Your task to perform on an android device: Open maps Image 0: 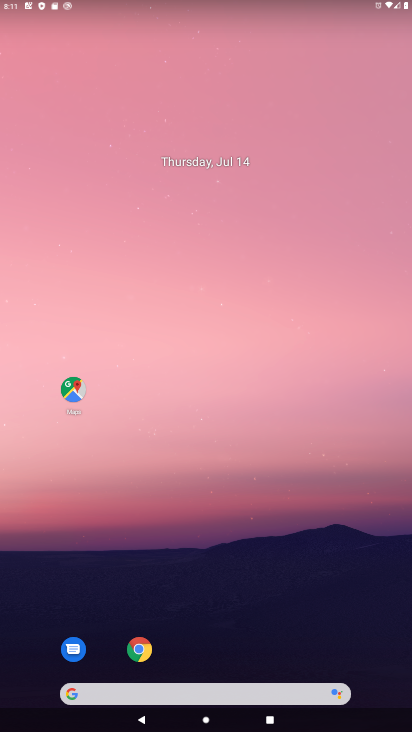
Step 0: press home button
Your task to perform on an android device: Open maps Image 1: 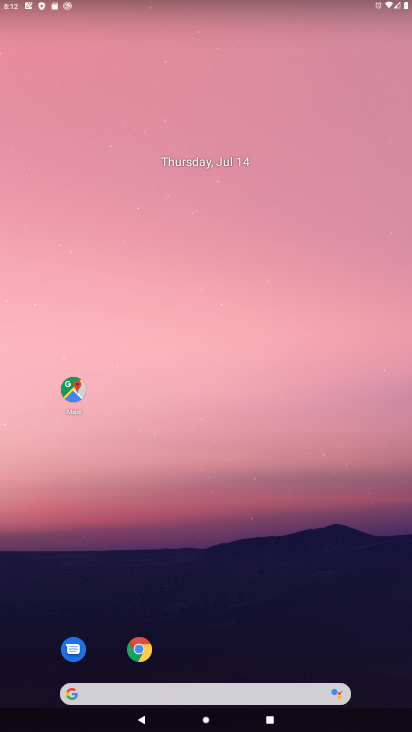
Step 1: click (65, 383)
Your task to perform on an android device: Open maps Image 2: 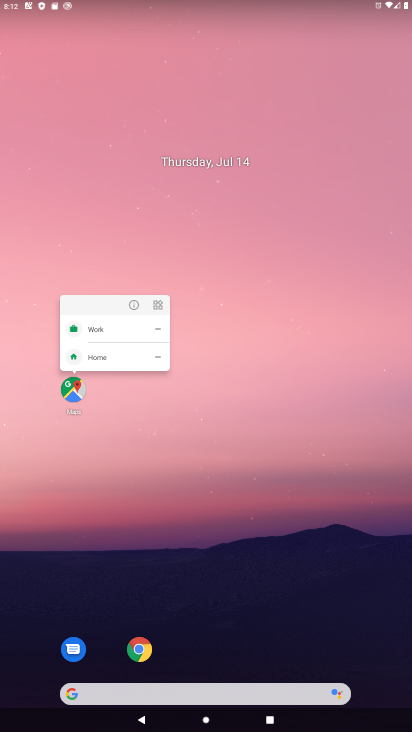
Step 2: click (74, 386)
Your task to perform on an android device: Open maps Image 3: 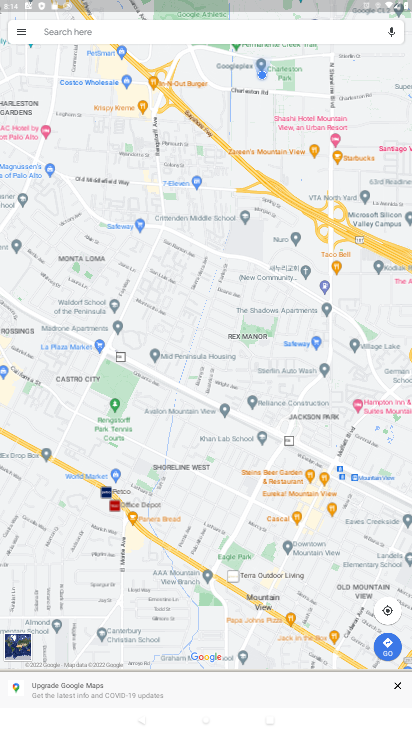
Step 3: task complete